Your task to perform on an android device: turn off location Image 0: 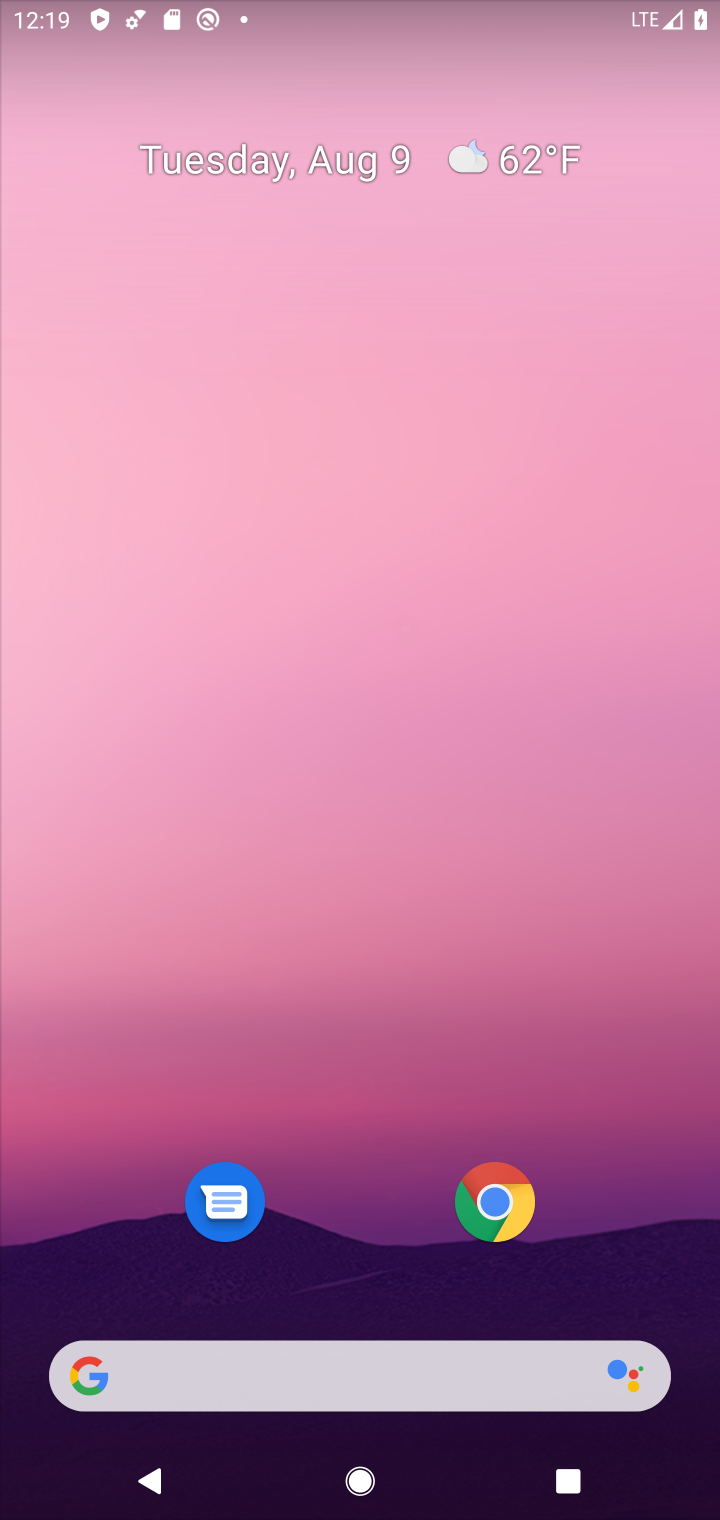
Step 0: press home button
Your task to perform on an android device: turn off location Image 1: 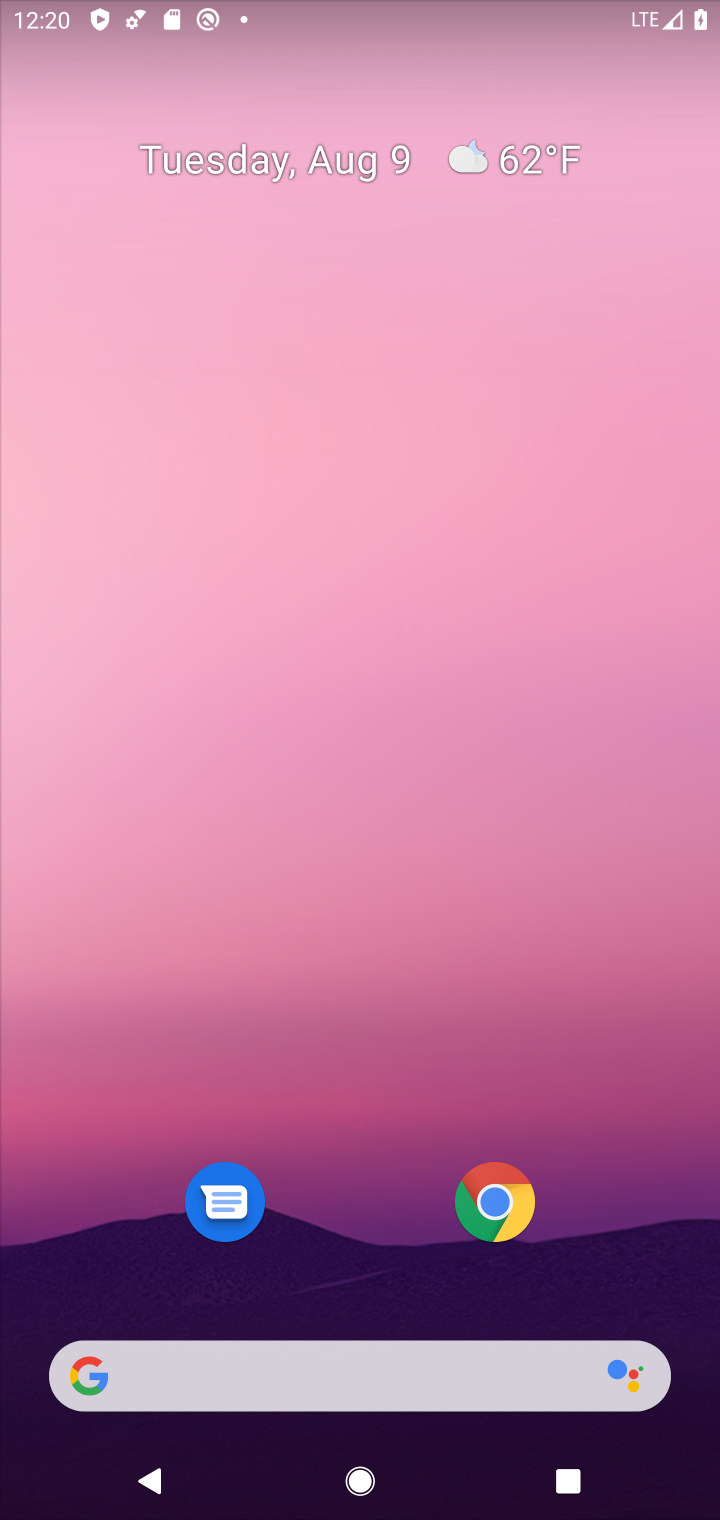
Step 1: drag from (370, 777) to (350, 258)
Your task to perform on an android device: turn off location Image 2: 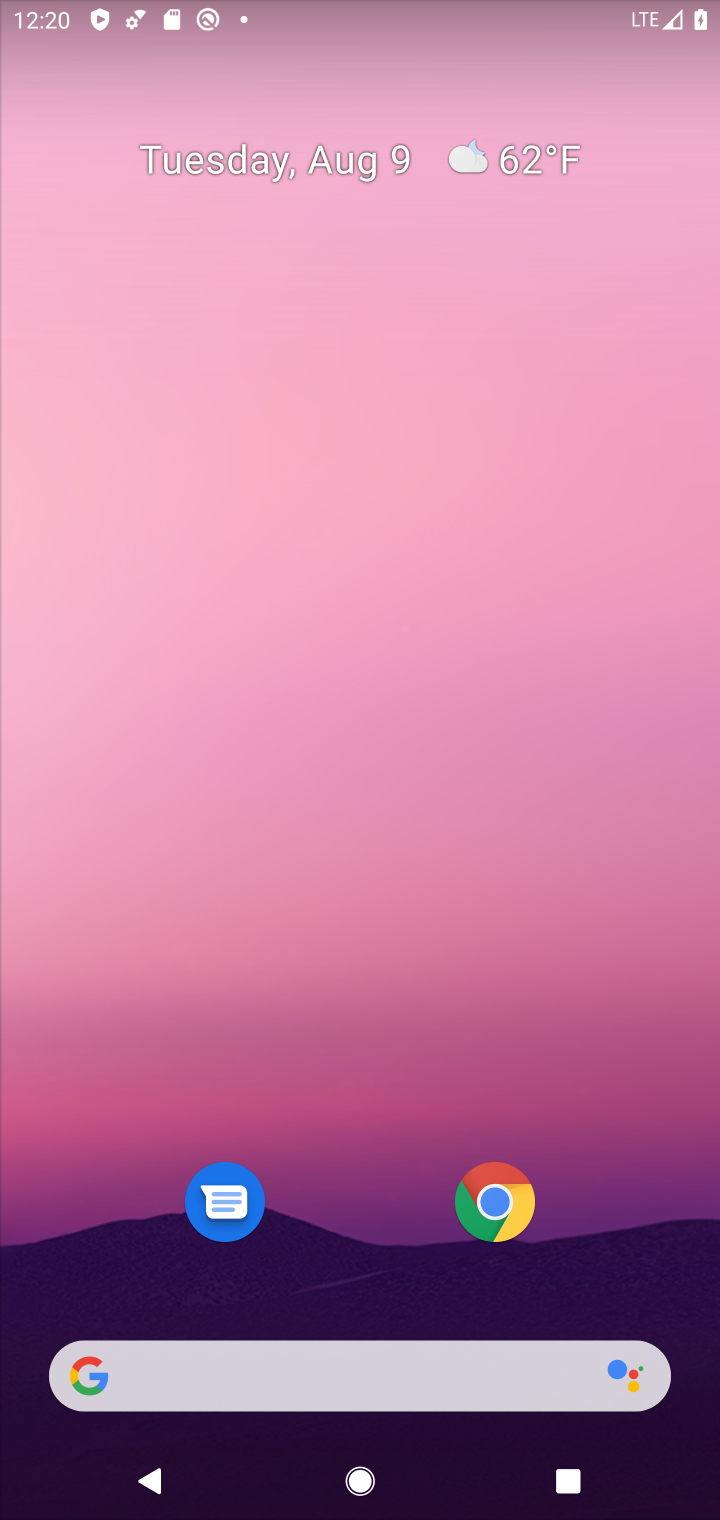
Step 2: drag from (324, 514) to (324, 318)
Your task to perform on an android device: turn off location Image 3: 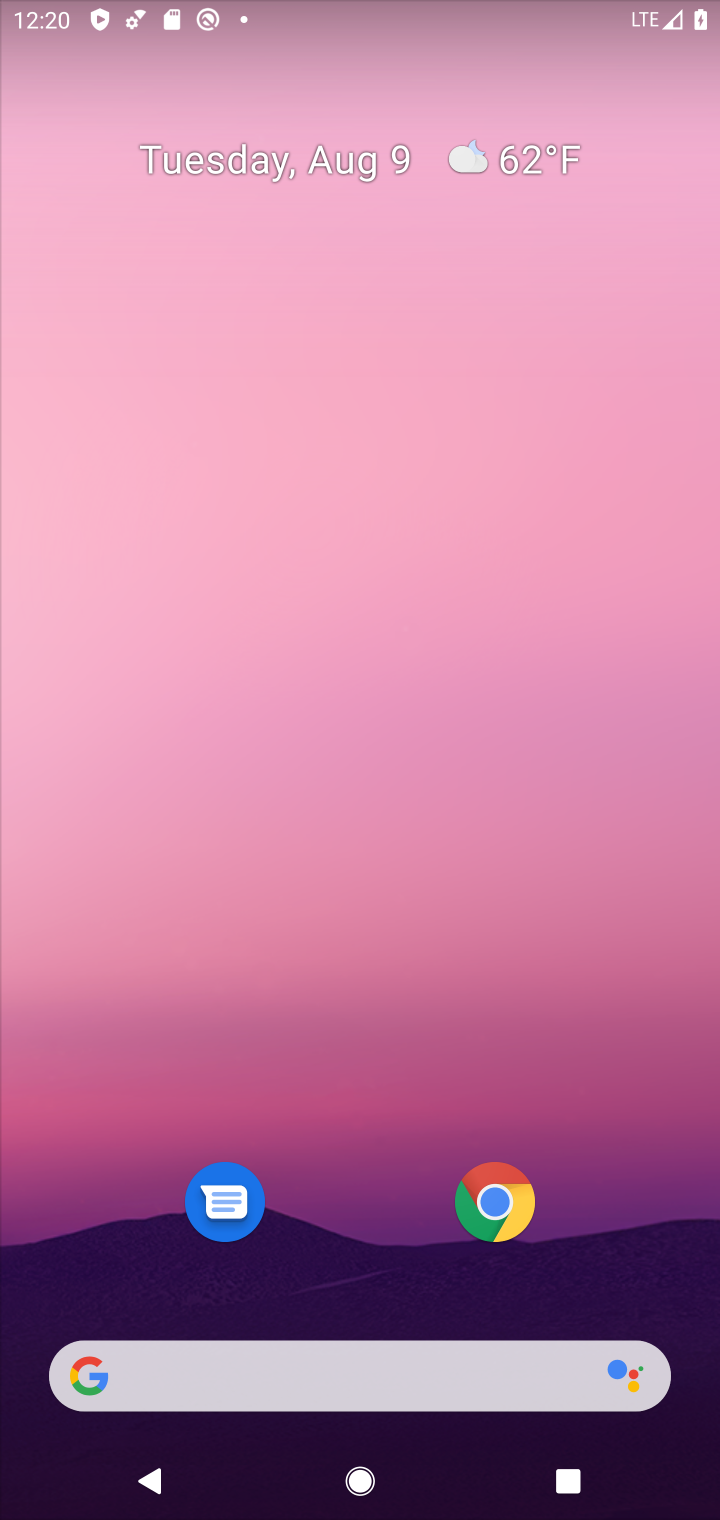
Step 3: drag from (365, 590) to (365, 452)
Your task to perform on an android device: turn off location Image 4: 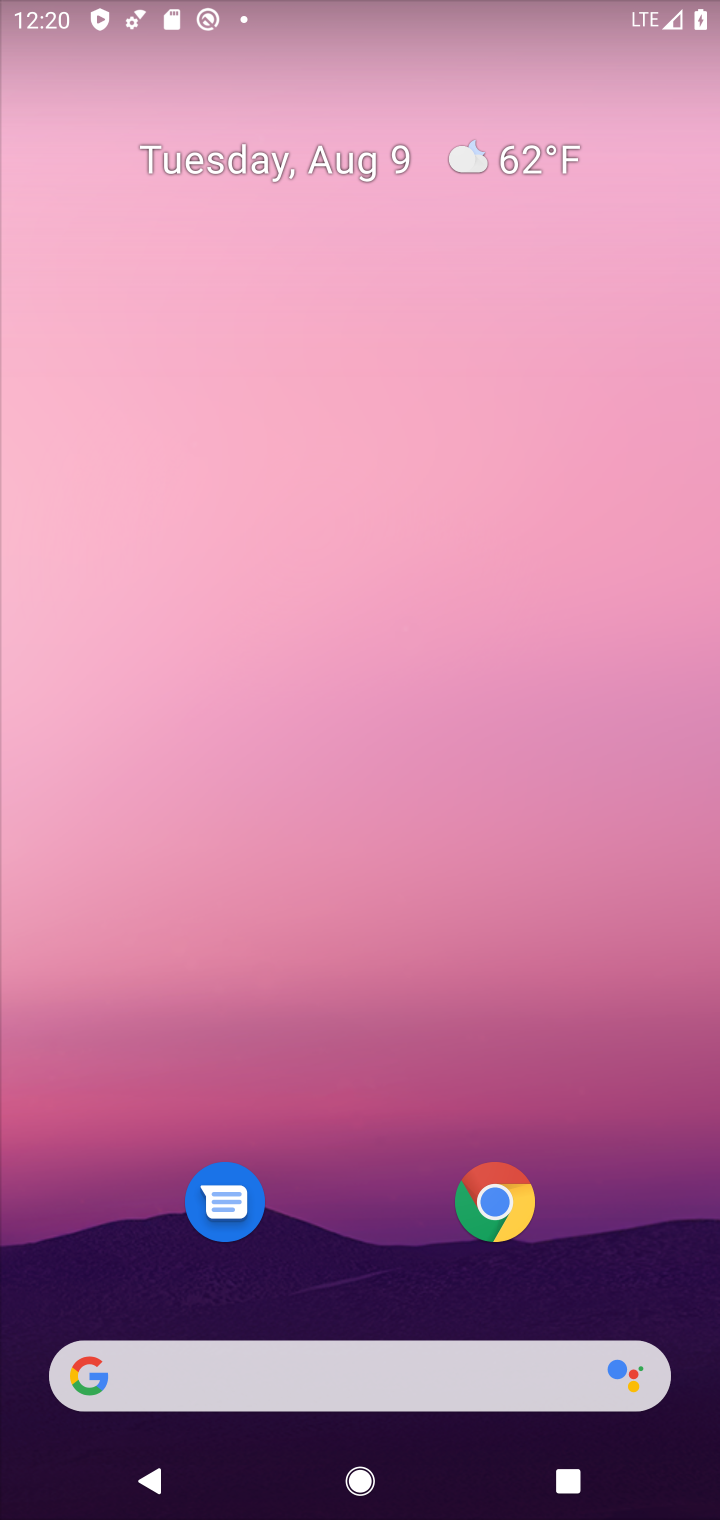
Step 4: click (271, 493)
Your task to perform on an android device: turn off location Image 5: 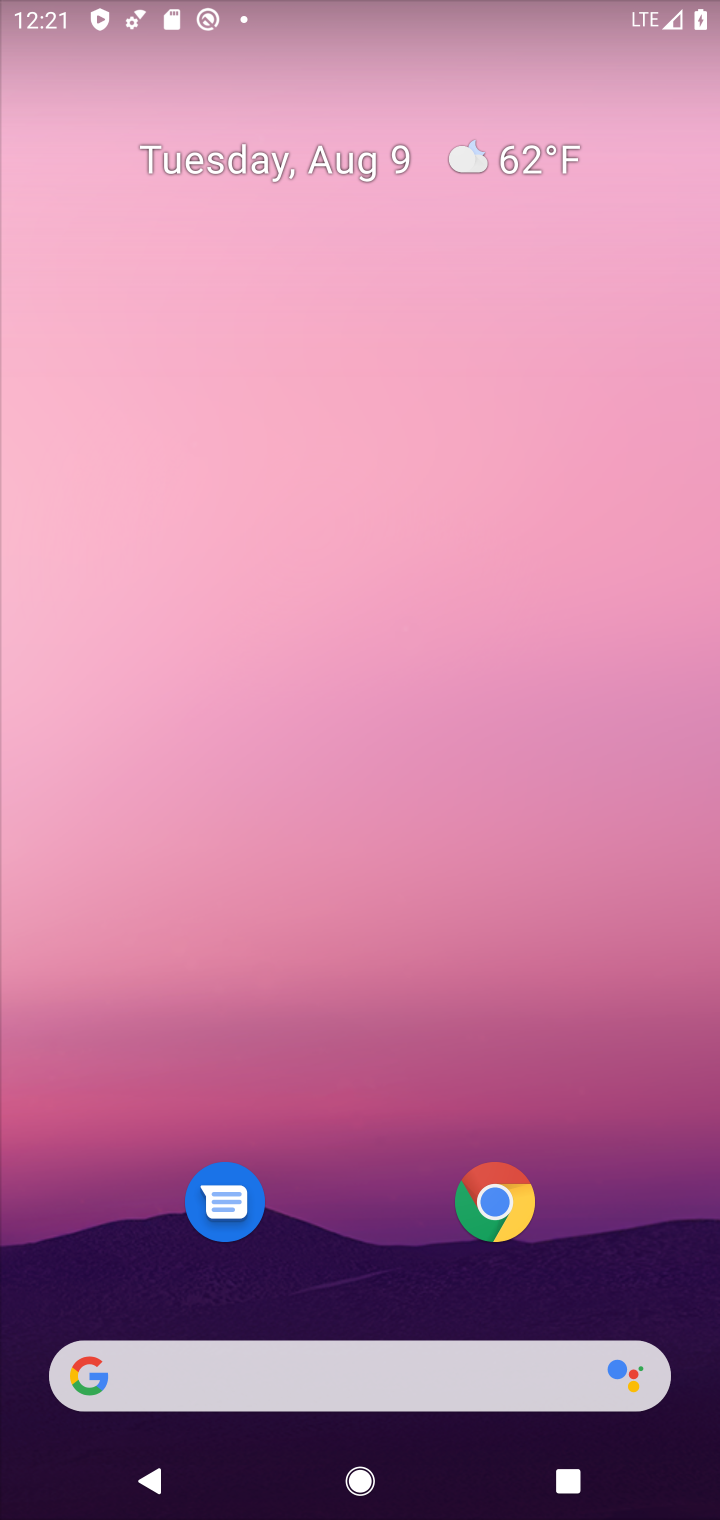
Step 5: drag from (322, 589) to (322, 346)
Your task to perform on an android device: turn off location Image 6: 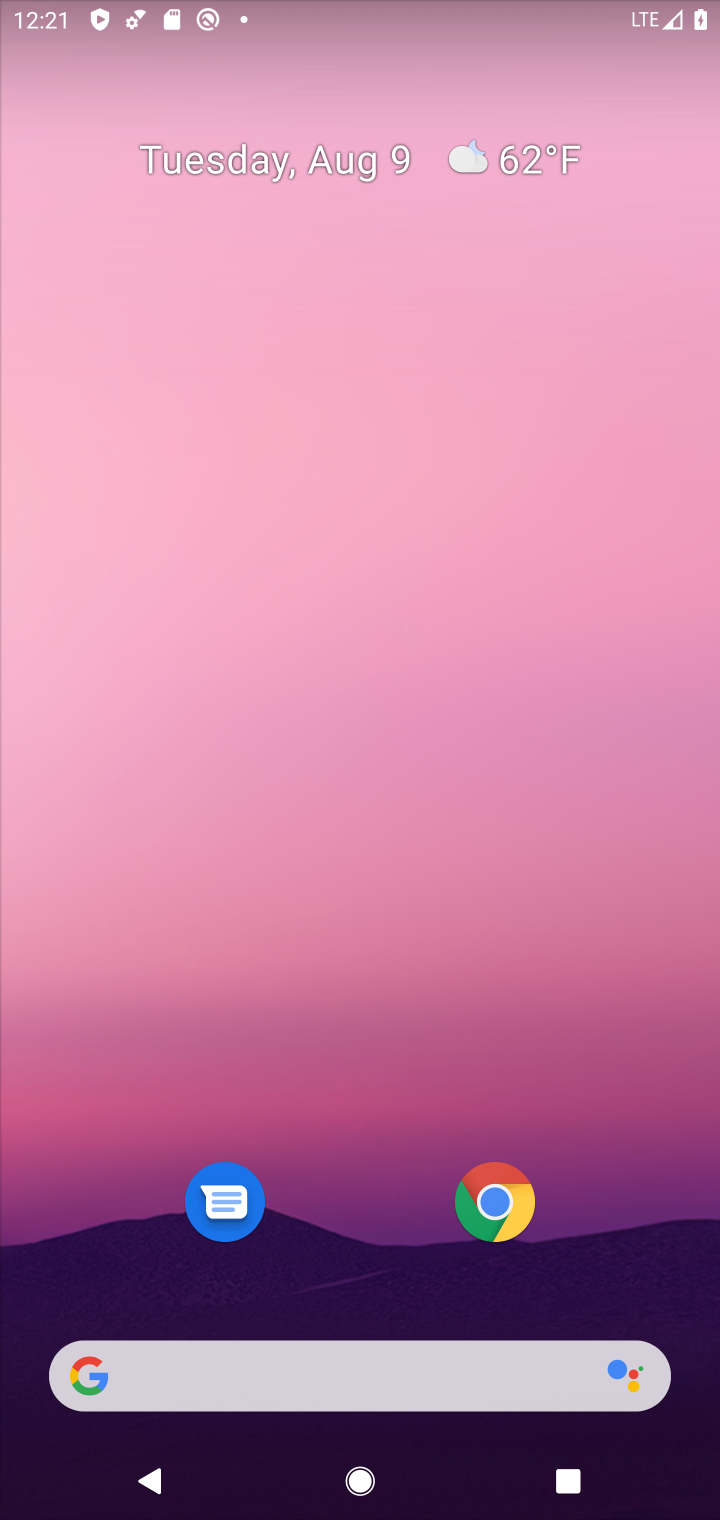
Step 6: drag from (362, 924) to (362, 157)
Your task to perform on an android device: turn off location Image 7: 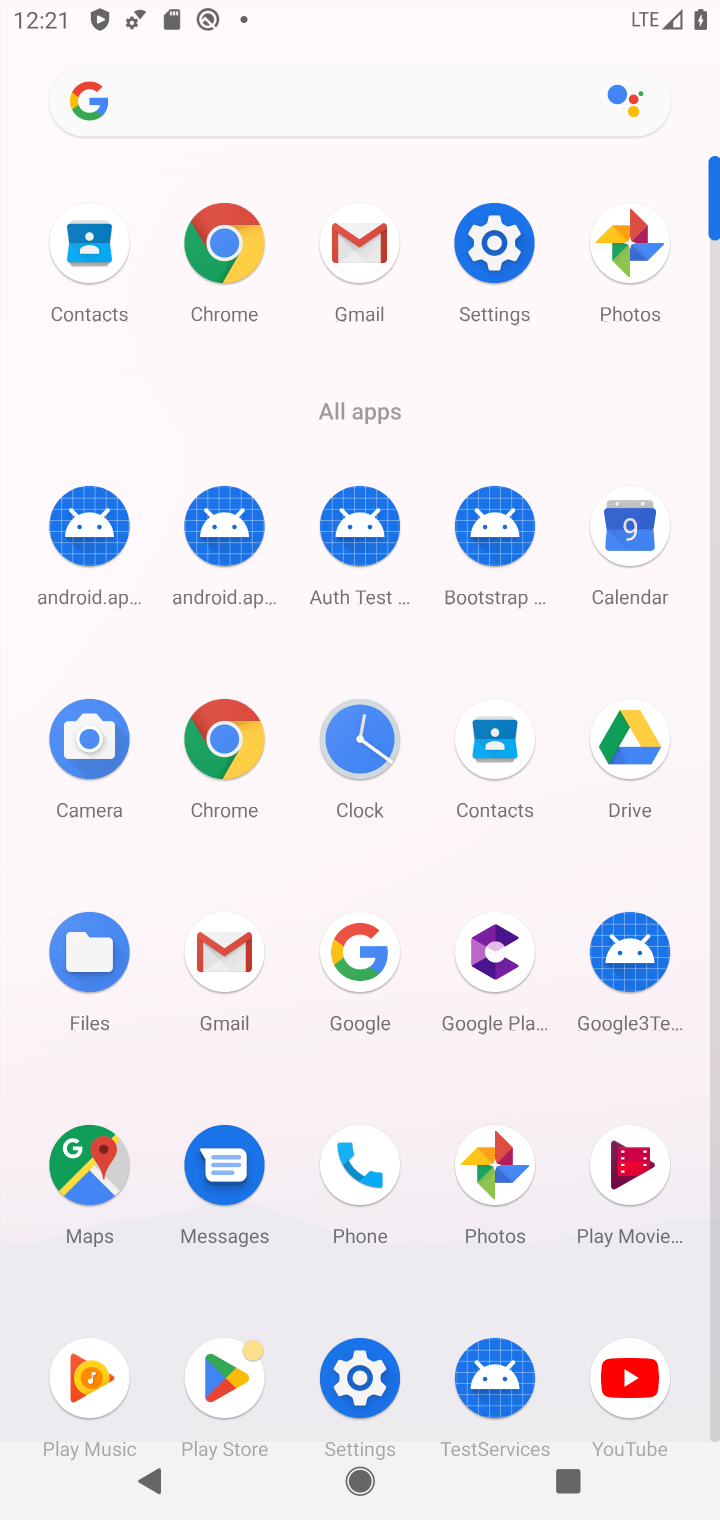
Step 7: click (476, 246)
Your task to perform on an android device: turn off location Image 8: 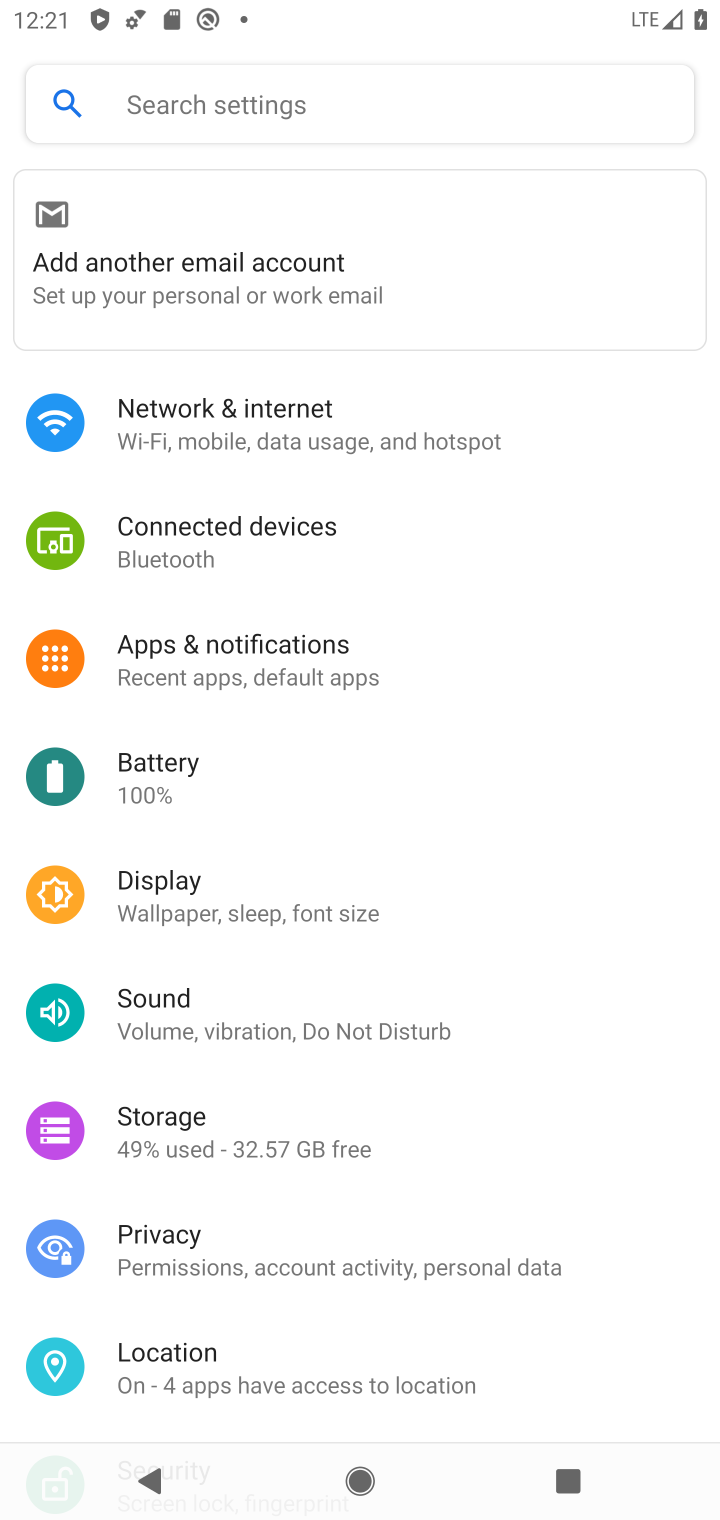
Step 8: drag from (311, 1015) to (299, 691)
Your task to perform on an android device: turn off location Image 9: 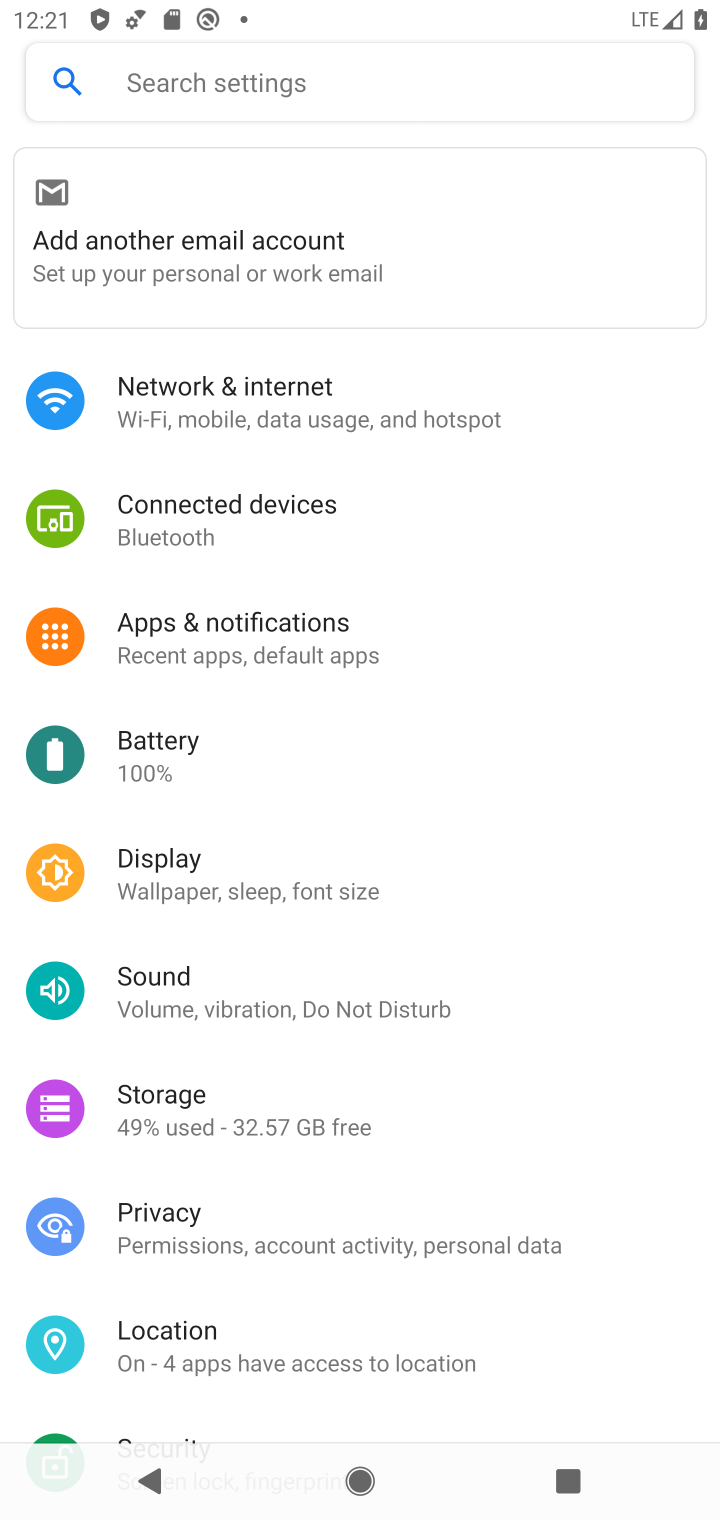
Step 9: click (152, 1348)
Your task to perform on an android device: turn off location Image 10: 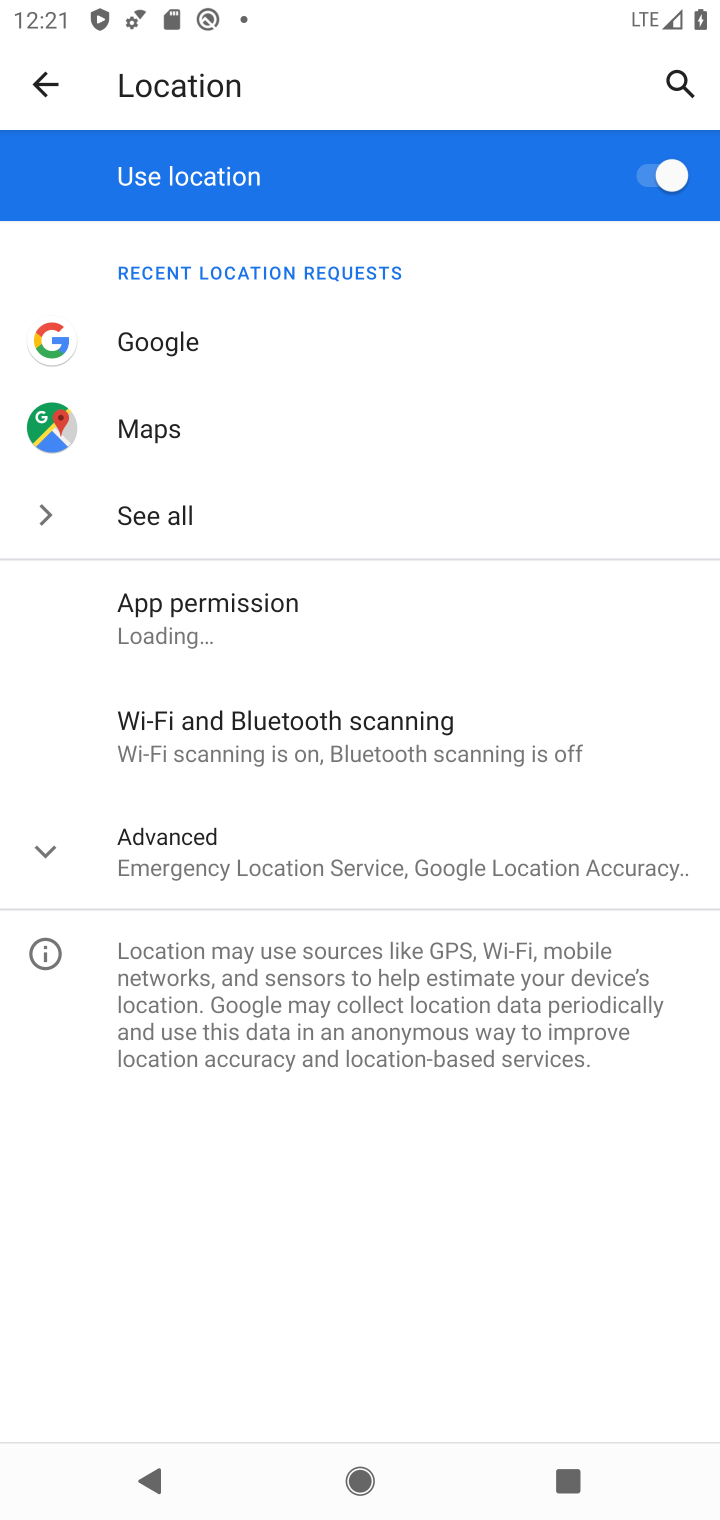
Step 10: click (658, 166)
Your task to perform on an android device: turn off location Image 11: 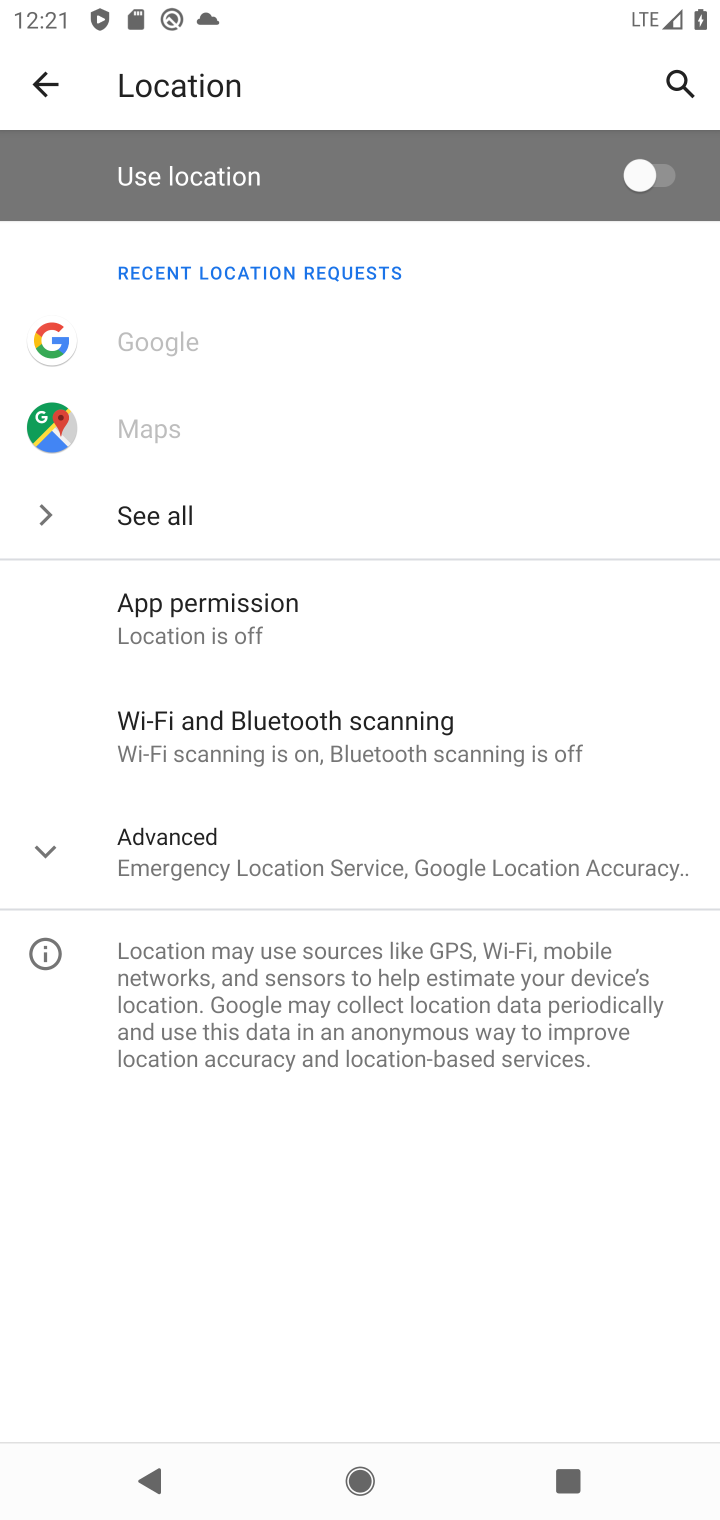
Step 11: task complete